Your task to perform on an android device: Open Yahoo.com Image 0: 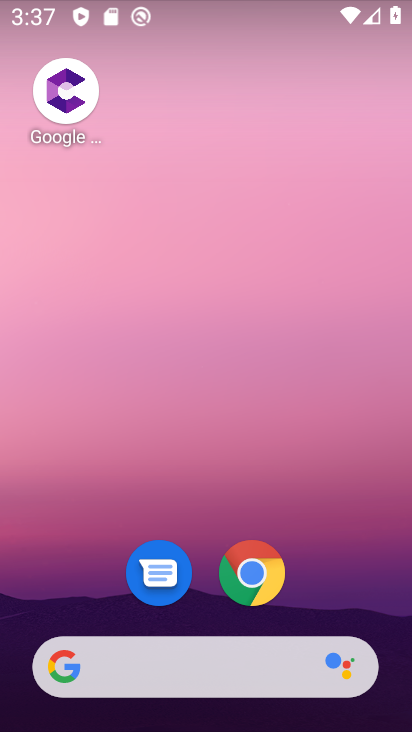
Step 0: click (255, 576)
Your task to perform on an android device: Open Yahoo.com Image 1: 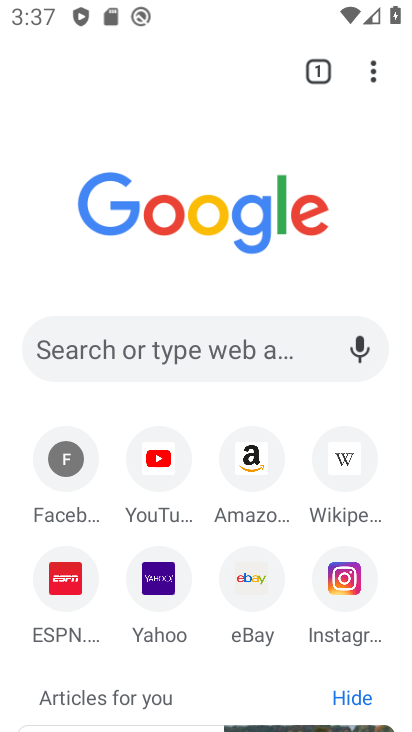
Step 1: click (166, 583)
Your task to perform on an android device: Open Yahoo.com Image 2: 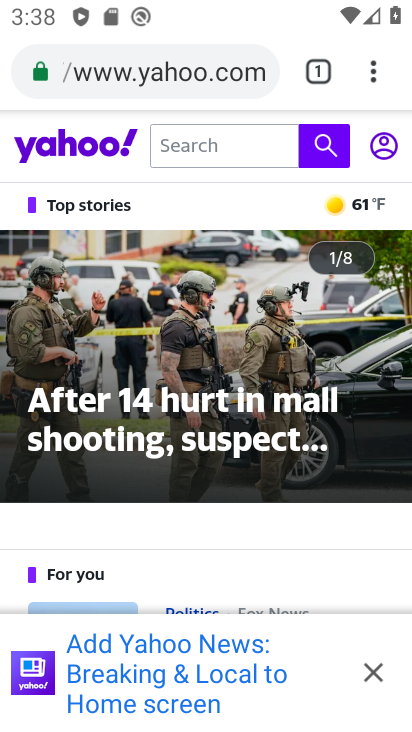
Step 2: click (371, 672)
Your task to perform on an android device: Open Yahoo.com Image 3: 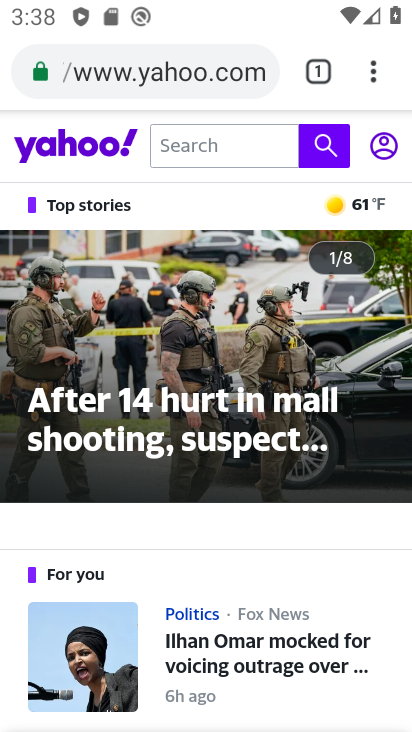
Step 3: task complete